Your task to perform on an android device: Open Android settings Image 0: 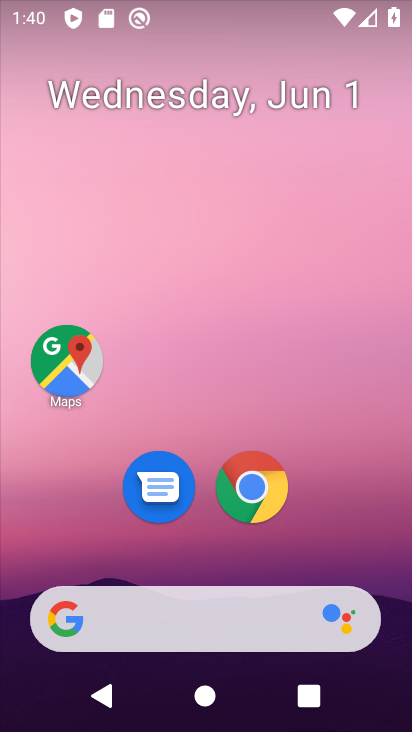
Step 0: click (357, 26)
Your task to perform on an android device: Open Android settings Image 1: 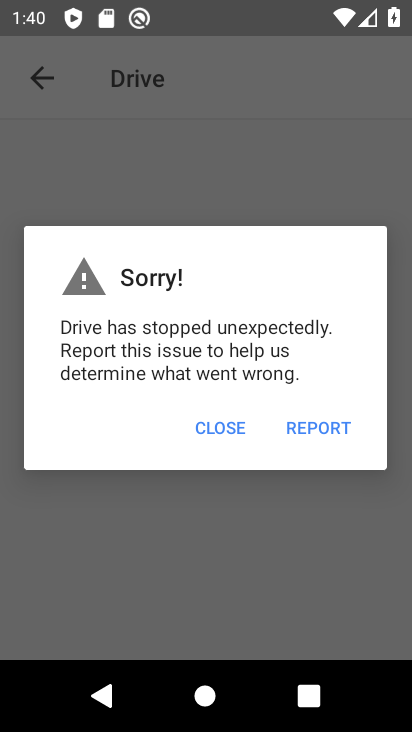
Step 1: press home button
Your task to perform on an android device: Open Android settings Image 2: 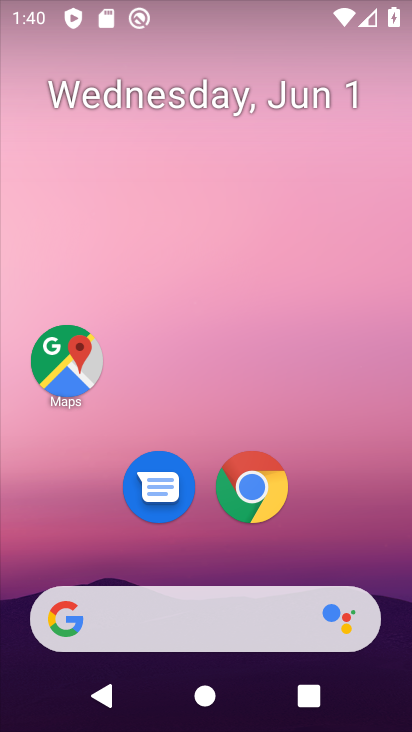
Step 2: drag from (355, 549) to (334, 153)
Your task to perform on an android device: Open Android settings Image 3: 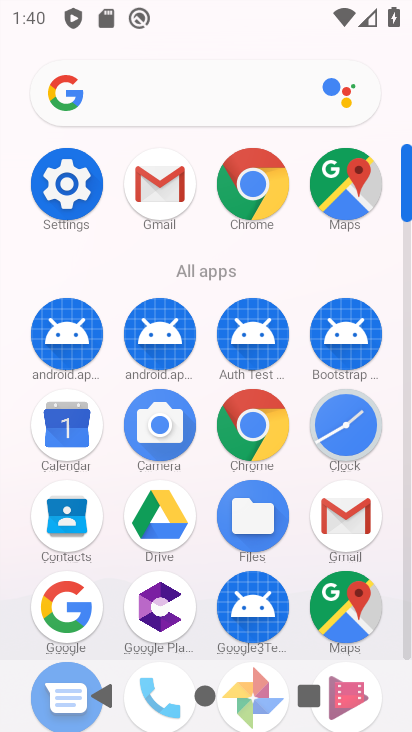
Step 3: click (86, 207)
Your task to perform on an android device: Open Android settings Image 4: 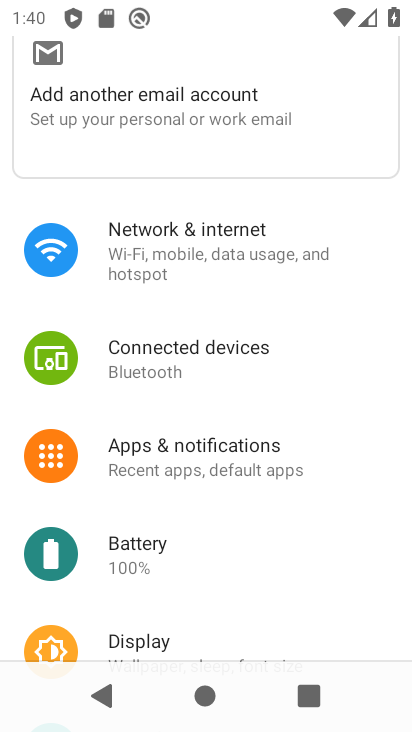
Step 4: drag from (347, 503) to (341, 388)
Your task to perform on an android device: Open Android settings Image 5: 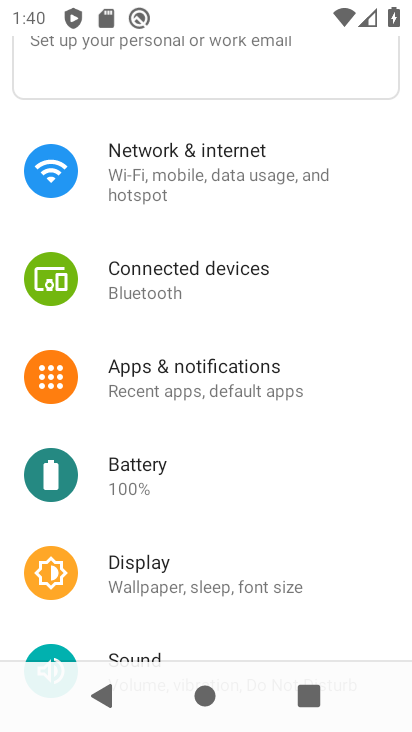
Step 5: drag from (355, 482) to (347, 366)
Your task to perform on an android device: Open Android settings Image 6: 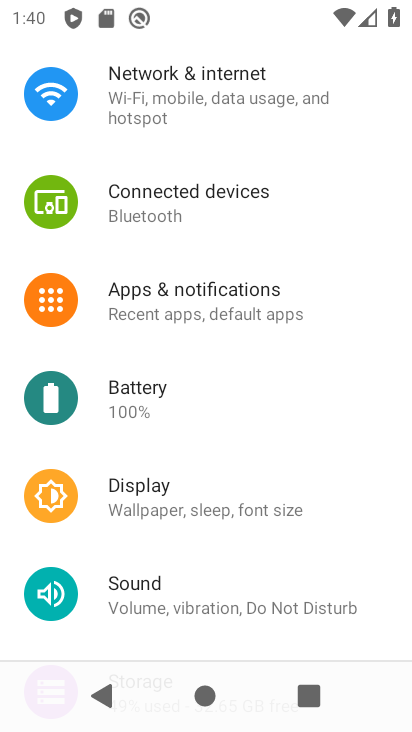
Step 6: drag from (362, 519) to (362, 407)
Your task to perform on an android device: Open Android settings Image 7: 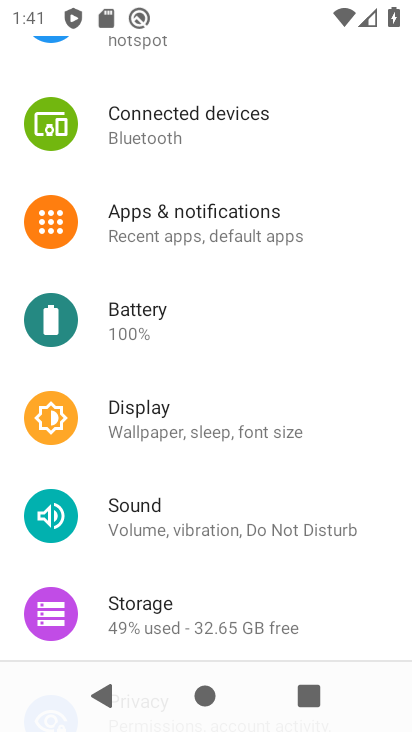
Step 7: drag from (360, 541) to (362, 464)
Your task to perform on an android device: Open Android settings Image 8: 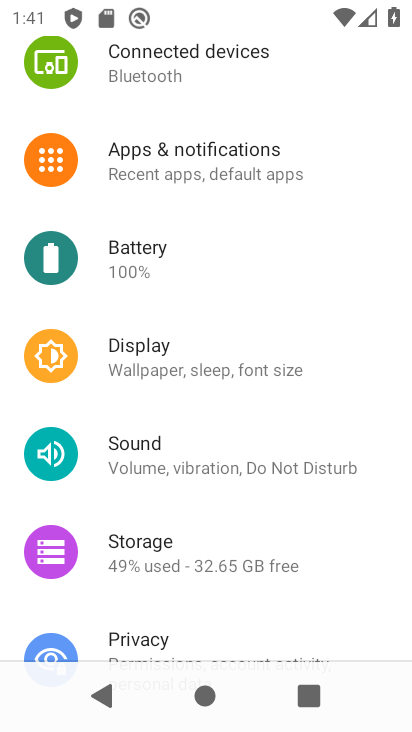
Step 8: drag from (359, 568) to (365, 439)
Your task to perform on an android device: Open Android settings Image 9: 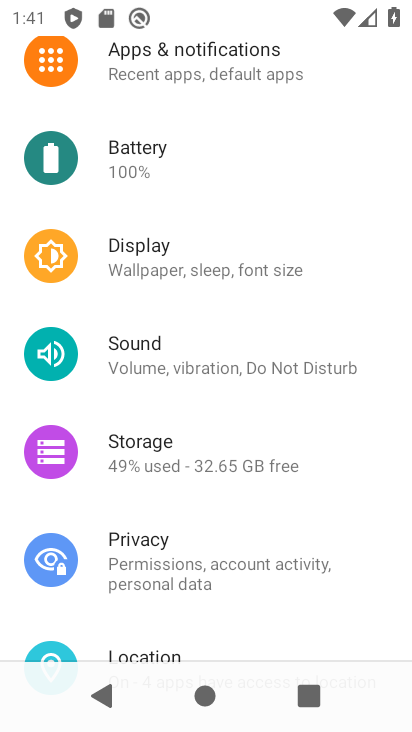
Step 9: drag from (363, 579) to (363, 484)
Your task to perform on an android device: Open Android settings Image 10: 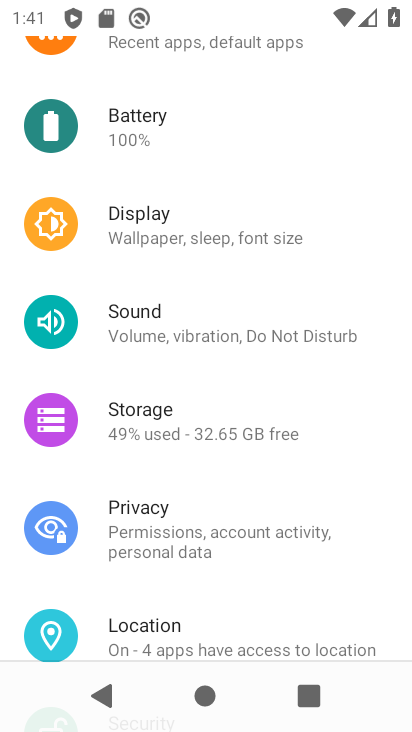
Step 10: drag from (362, 563) to (372, 440)
Your task to perform on an android device: Open Android settings Image 11: 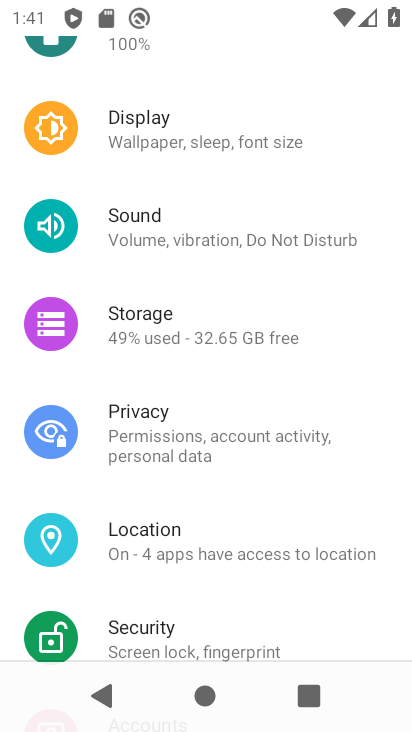
Step 11: drag from (364, 593) to (366, 421)
Your task to perform on an android device: Open Android settings Image 12: 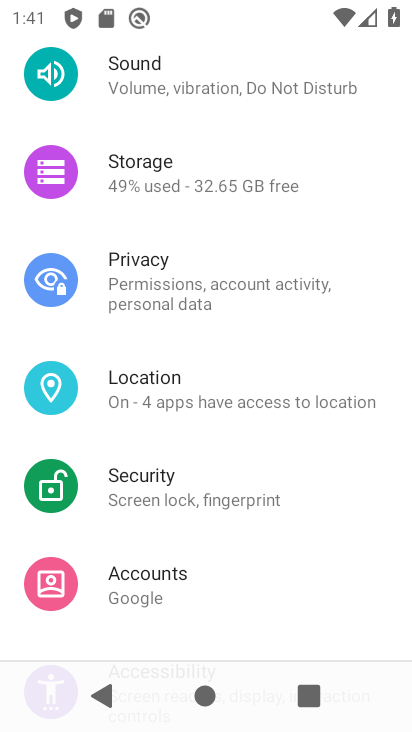
Step 12: drag from (357, 524) to (357, 403)
Your task to perform on an android device: Open Android settings Image 13: 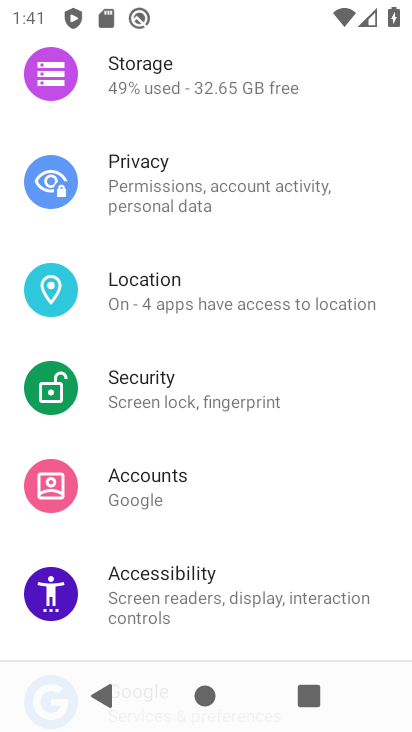
Step 13: drag from (355, 563) to (359, 386)
Your task to perform on an android device: Open Android settings Image 14: 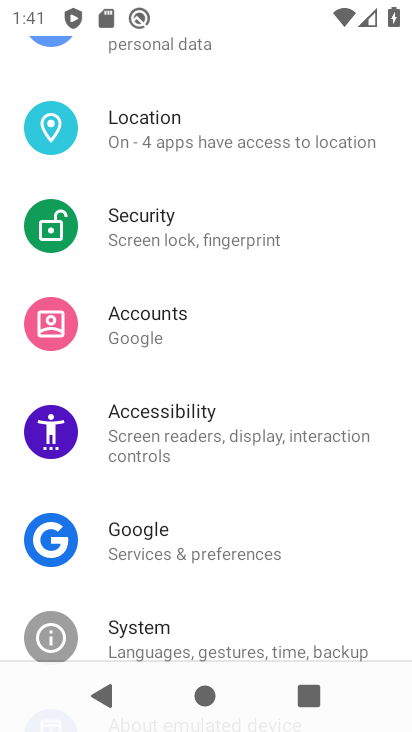
Step 14: drag from (353, 568) to (355, 408)
Your task to perform on an android device: Open Android settings Image 15: 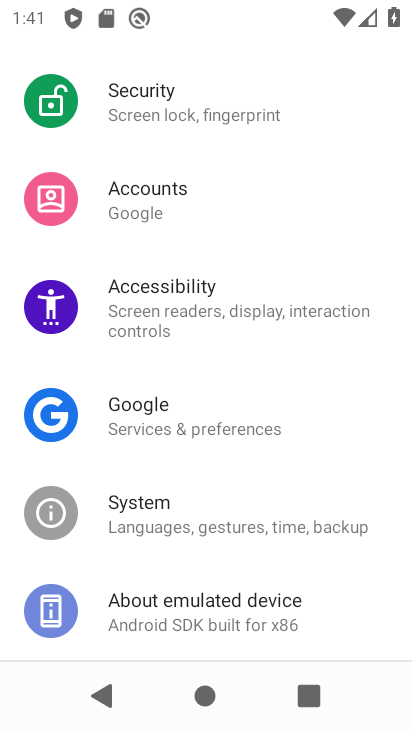
Step 15: click (307, 520)
Your task to perform on an android device: Open Android settings Image 16: 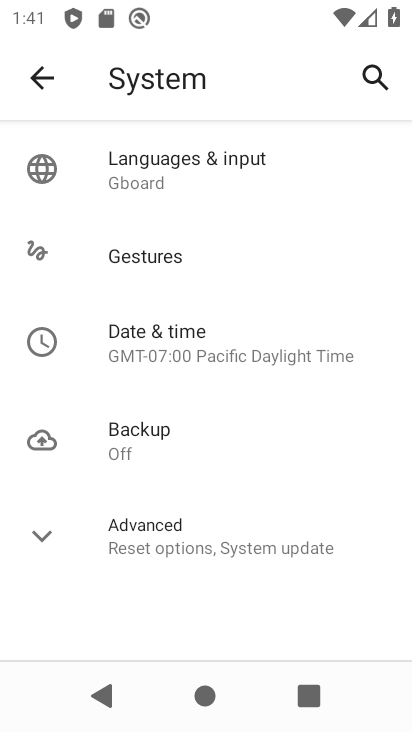
Step 16: click (306, 531)
Your task to perform on an android device: Open Android settings Image 17: 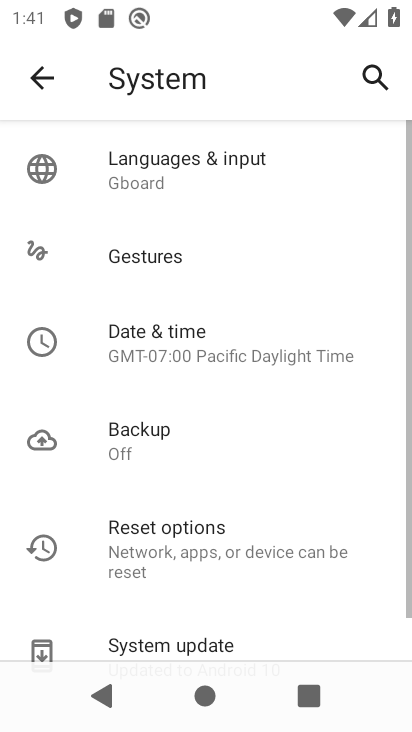
Step 17: task complete